Your task to perform on an android device: Go to Android settings Image 0: 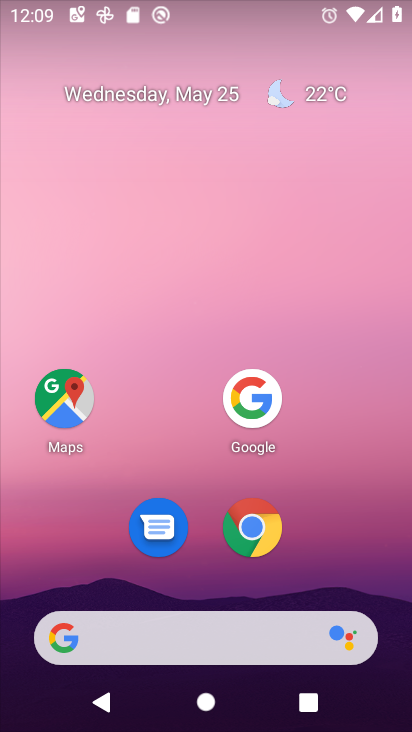
Step 0: drag from (125, 581) to (270, 134)
Your task to perform on an android device: Go to Android settings Image 1: 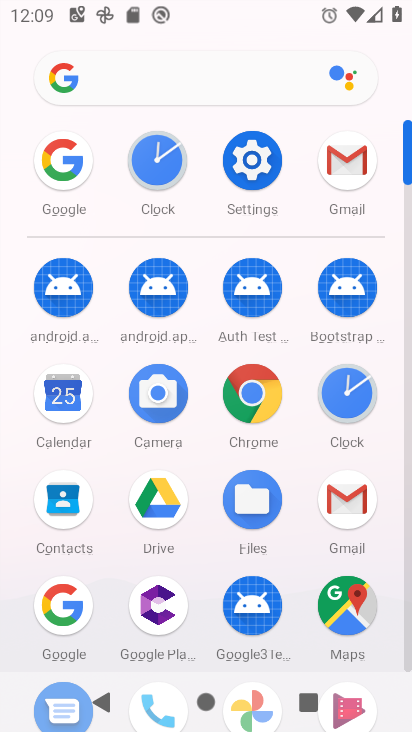
Step 1: click (249, 170)
Your task to perform on an android device: Go to Android settings Image 2: 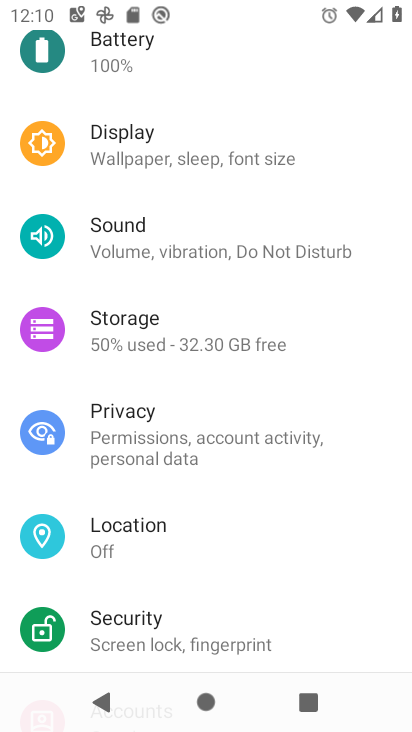
Step 2: task complete